Your task to perform on an android device: toggle airplane mode Image 0: 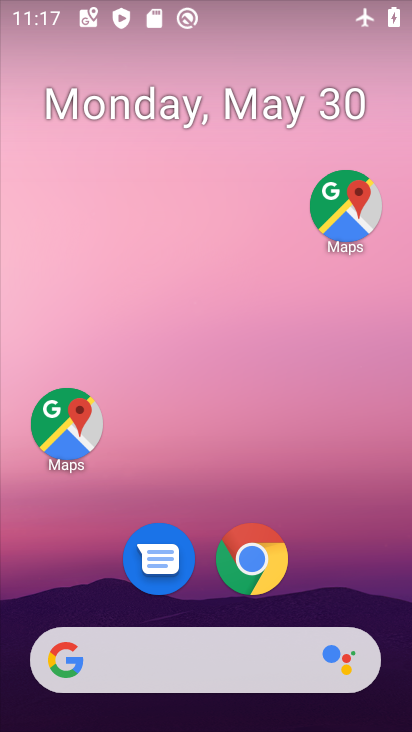
Step 0: drag from (329, 562) to (289, 72)
Your task to perform on an android device: toggle airplane mode Image 1: 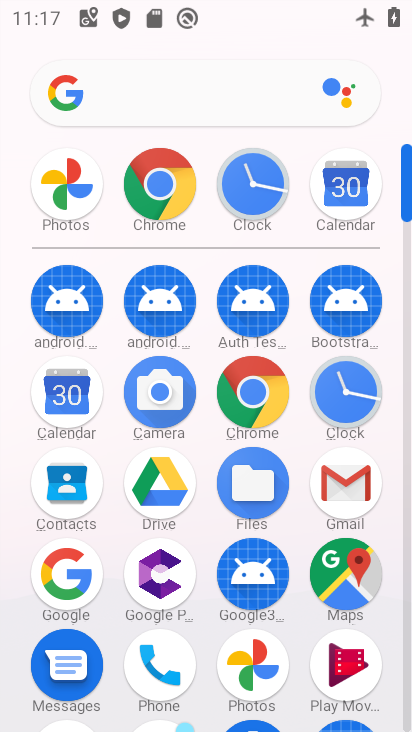
Step 1: drag from (208, 533) to (220, 217)
Your task to perform on an android device: toggle airplane mode Image 2: 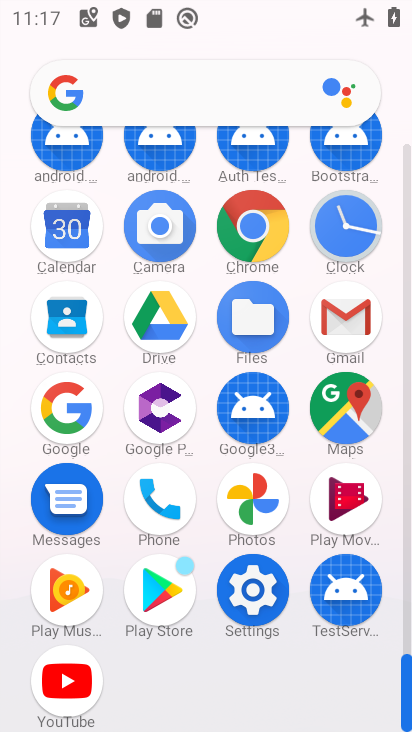
Step 2: click (257, 593)
Your task to perform on an android device: toggle airplane mode Image 3: 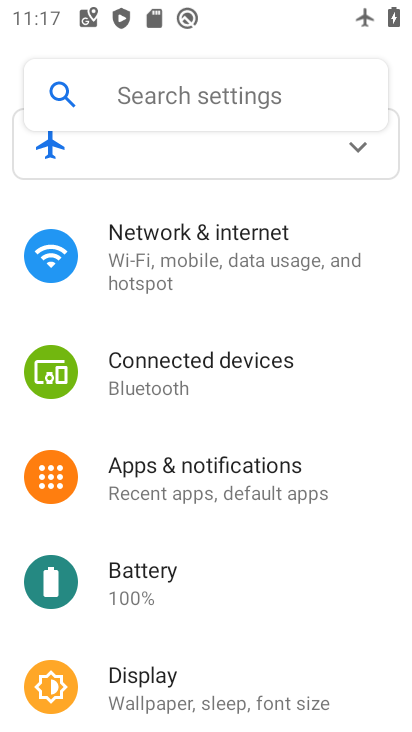
Step 3: click (185, 243)
Your task to perform on an android device: toggle airplane mode Image 4: 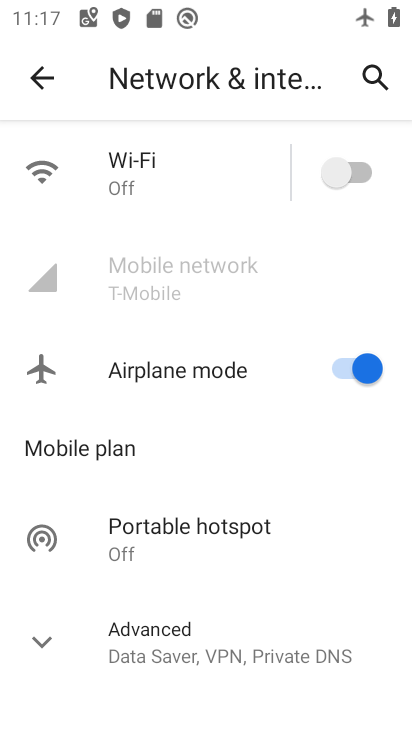
Step 4: click (345, 371)
Your task to perform on an android device: toggle airplane mode Image 5: 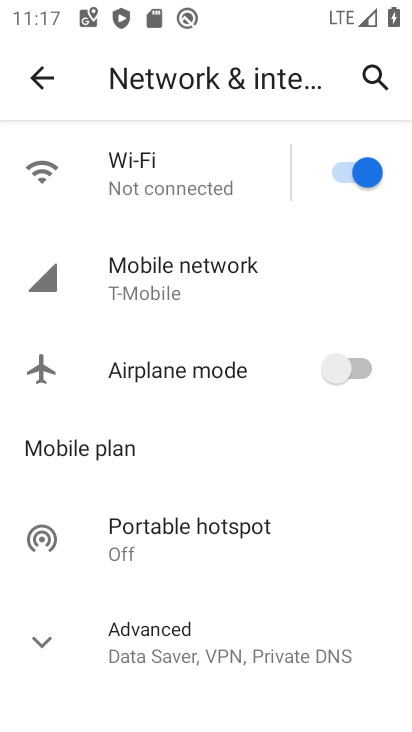
Step 5: task complete